Your task to perform on an android device: find photos in the google photos app Image 0: 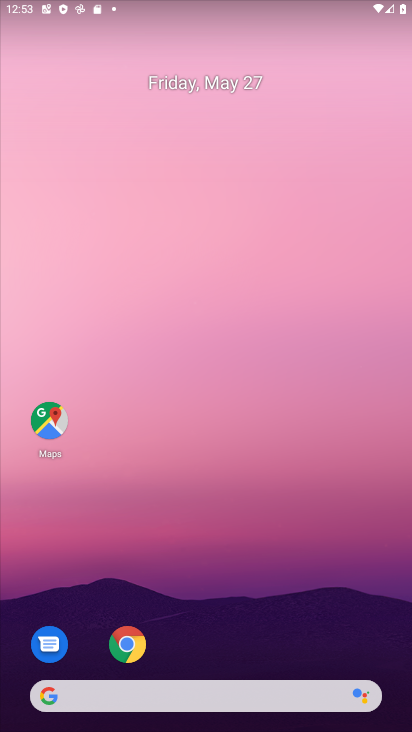
Step 0: drag from (342, 639) to (246, 101)
Your task to perform on an android device: find photos in the google photos app Image 1: 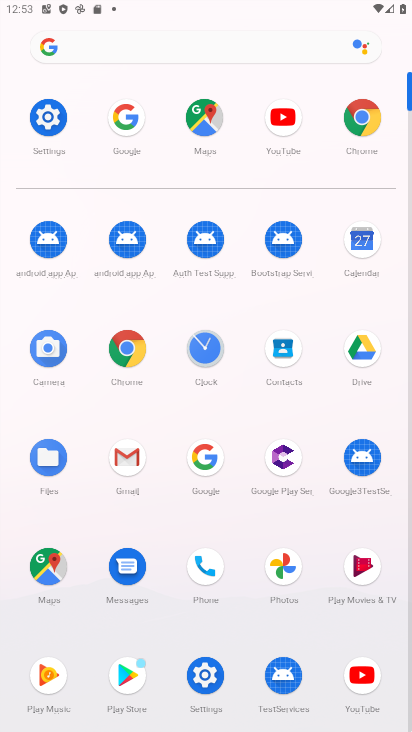
Step 1: click (287, 577)
Your task to perform on an android device: find photos in the google photos app Image 2: 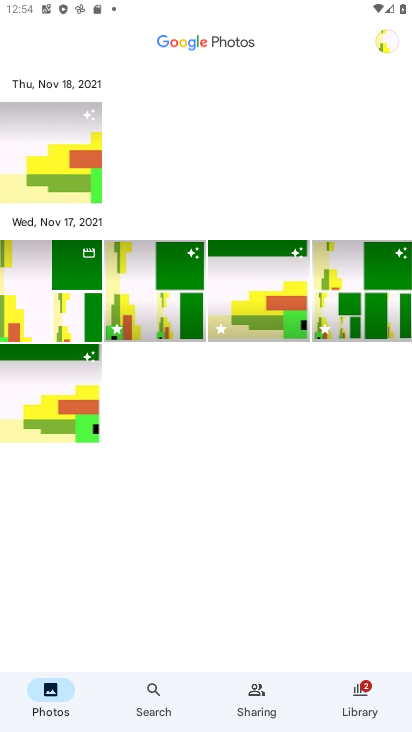
Step 2: task complete